Your task to perform on an android device: turn on priority inbox in the gmail app Image 0: 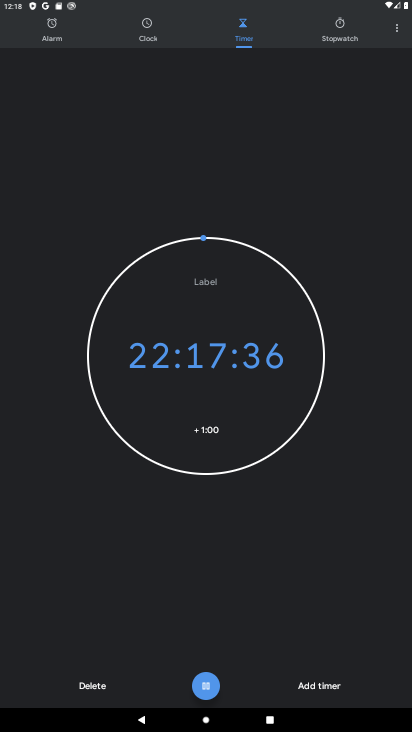
Step 0: press home button
Your task to perform on an android device: turn on priority inbox in the gmail app Image 1: 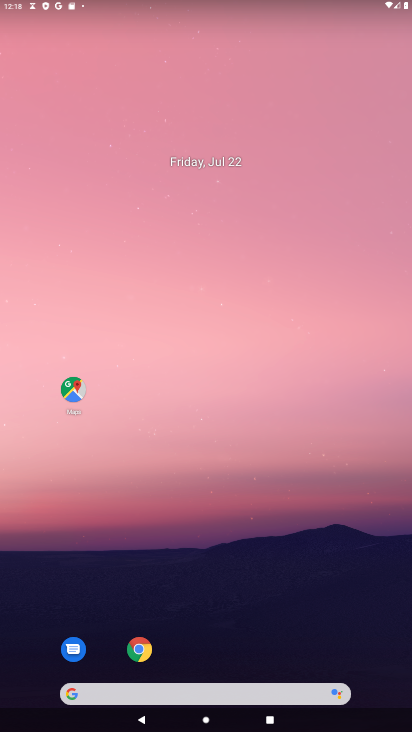
Step 1: drag from (336, 616) to (225, 213)
Your task to perform on an android device: turn on priority inbox in the gmail app Image 2: 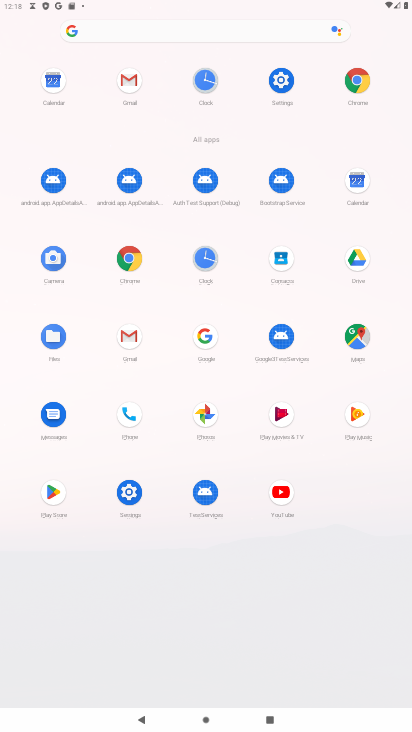
Step 2: click (132, 340)
Your task to perform on an android device: turn on priority inbox in the gmail app Image 3: 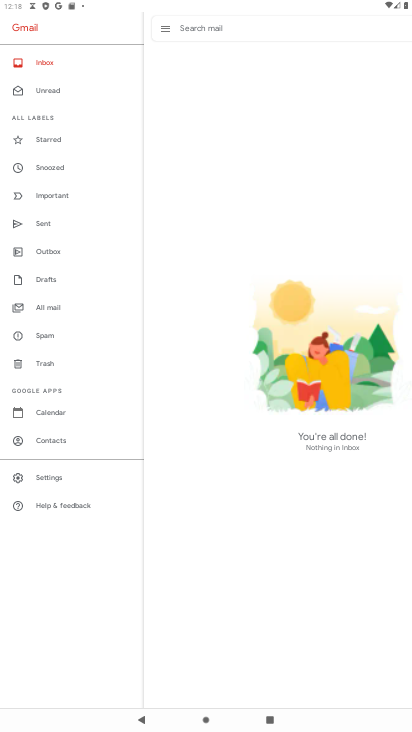
Step 3: click (57, 477)
Your task to perform on an android device: turn on priority inbox in the gmail app Image 4: 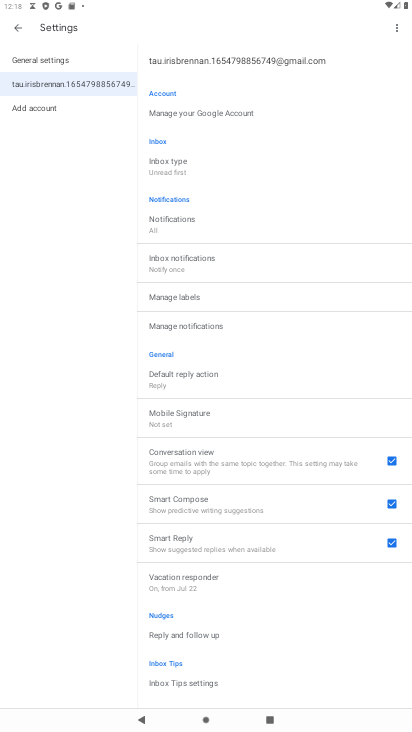
Step 4: click (183, 159)
Your task to perform on an android device: turn on priority inbox in the gmail app Image 5: 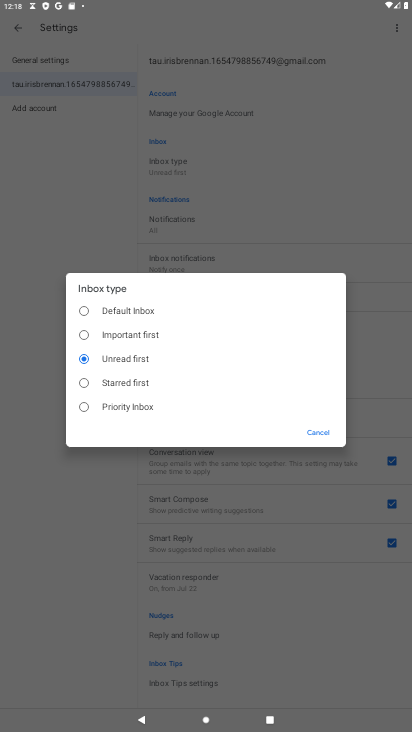
Step 5: click (118, 408)
Your task to perform on an android device: turn on priority inbox in the gmail app Image 6: 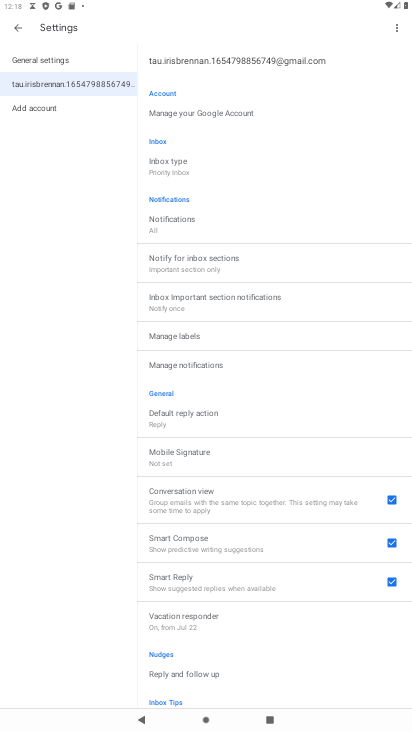
Step 6: task complete